Your task to perform on an android device: change notification settings in the gmail app Image 0: 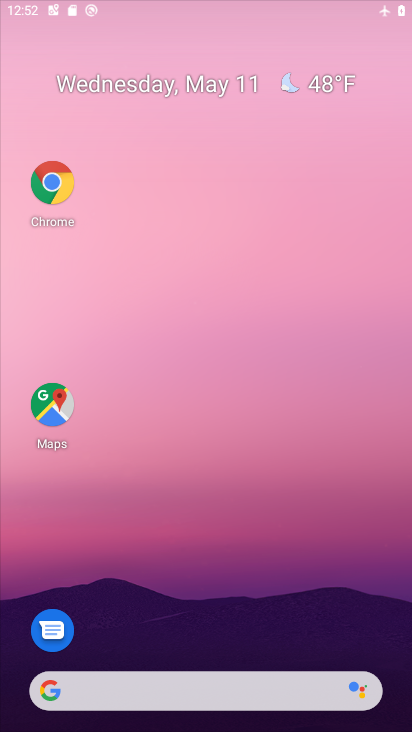
Step 0: drag from (209, 660) to (231, 9)
Your task to perform on an android device: change notification settings in the gmail app Image 1: 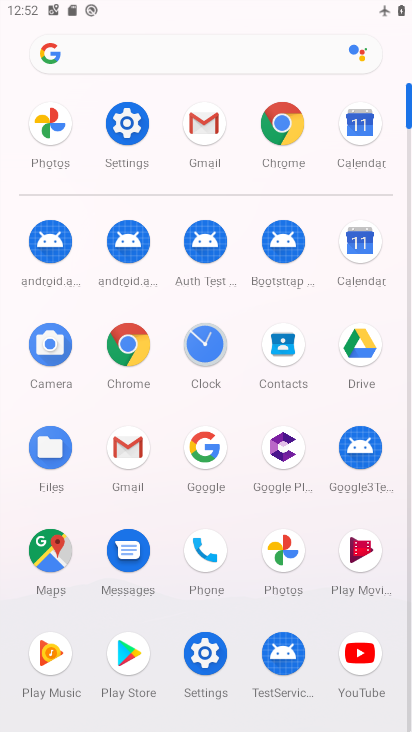
Step 1: click (115, 445)
Your task to perform on an android device: change notification settings in the gmail app Image 2: 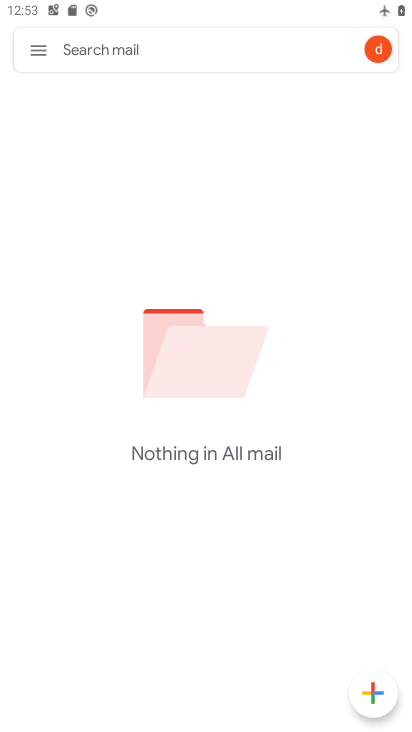
Step 2: click (13, 52)
Your task to perform on an android device: change notification settings in the gmail app Image 3: 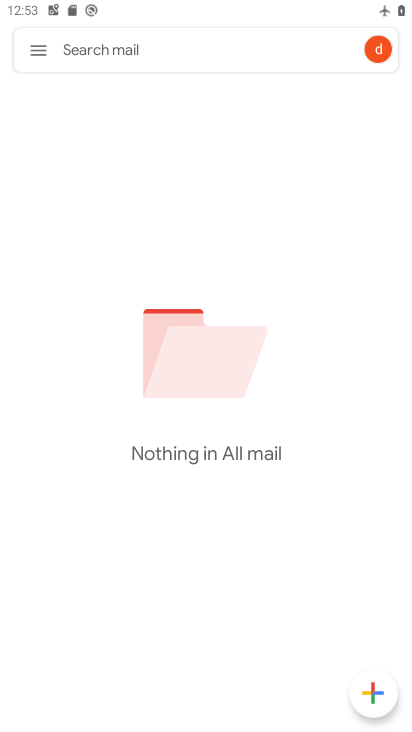
Step 3: click (45, 48)
Your task to perform on an android device: change notification settings in the gmail app Image 4: 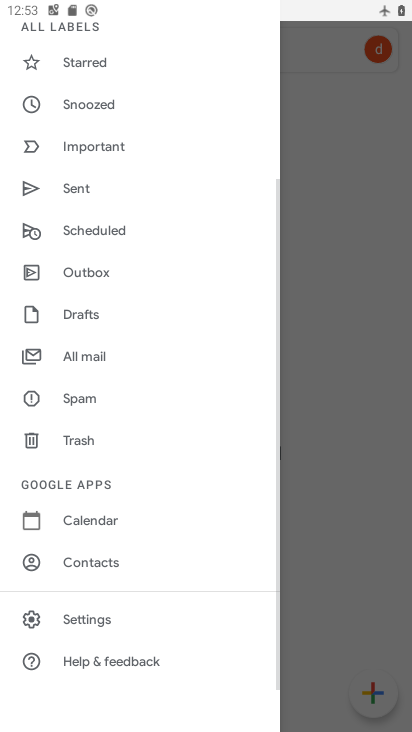
Step 4: click (104, 620)
Your task to perform on an android device: change notification settings in the gmail app Image 5: 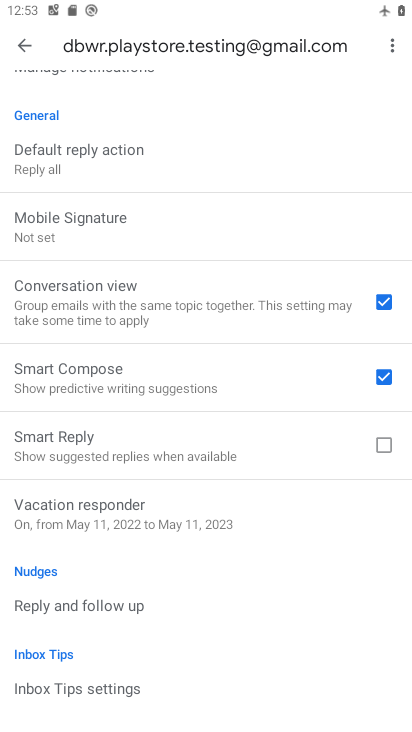
Step 5: drag from (85, 135) to (93, 415)
Your task to perform on an android device: change notification settings in the gmail app Image 6: 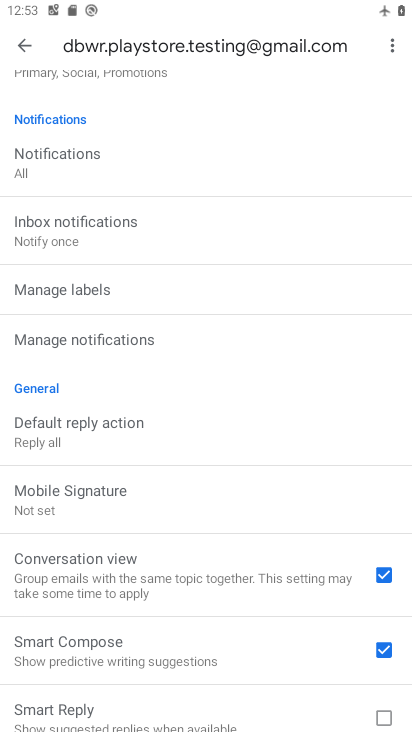
Step 6: click (30, 33)
Your task to perform on an android device: change notification settings in the gmail app Image 7: 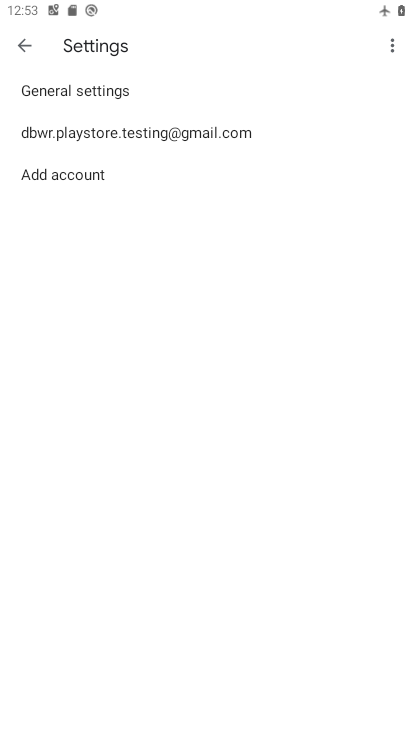
Step 7: click (59, 90)
Your task to perform on an android device: change notification settings in the gmail app Image 8: 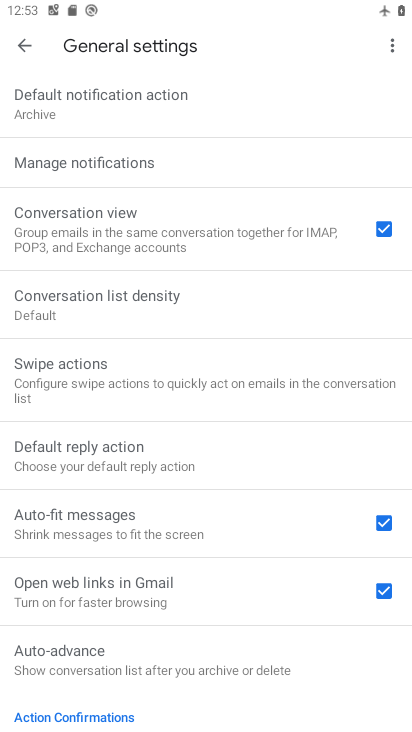
Step 8: click (141, 176)
Your task to perform on an android device: change notification settings in the gmail app Image 9: 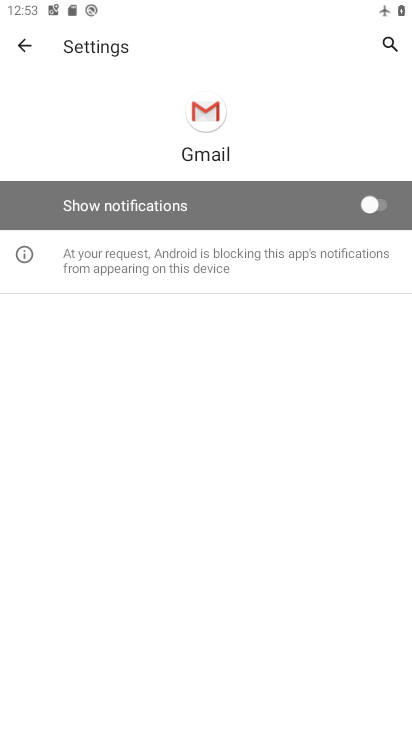
Step 9: click (383, 202)
Your task to perform on an android device: change notification settings in the gmail app Image 10: 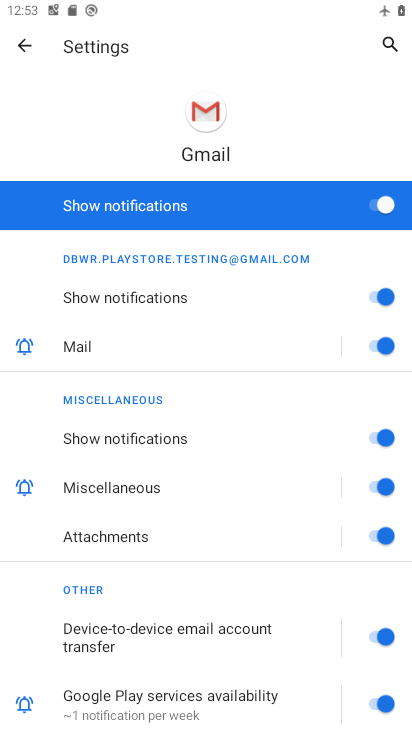
Step 10: task complete